Your task to perform on an android device: toggle show notifications on the lock screen Image 0: 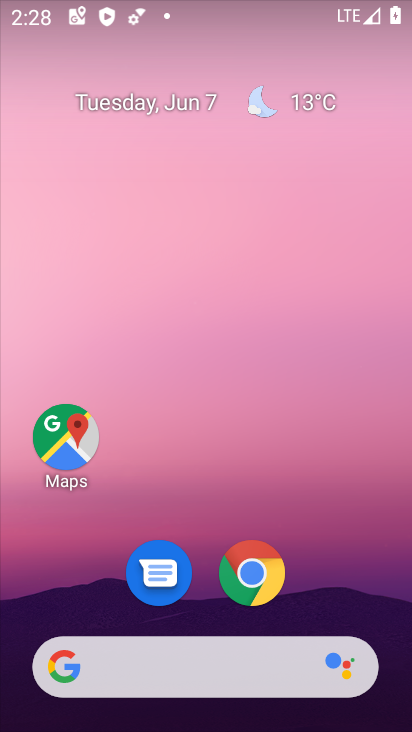
Step 0: drag from (205, 611) to (191, 37)
Your task to perform on an android device: toggle show notifications on the lock screen Image 1: 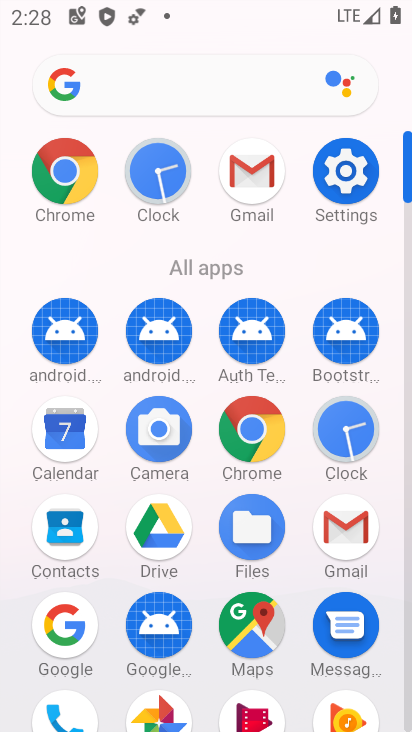
Step 1: click (342, 170)
Your task to perform on an android device: toggle show notifications on the lock screen Image 2: 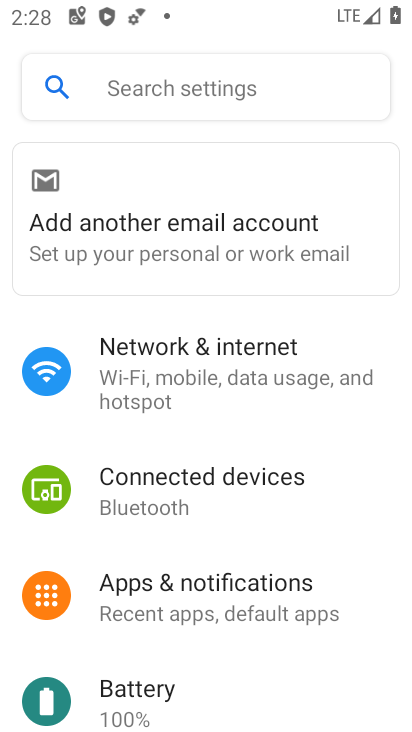
Step 2: click (205, 613)
Your task to perform on an android device: toggle show notifications on the lock screen Image 3: 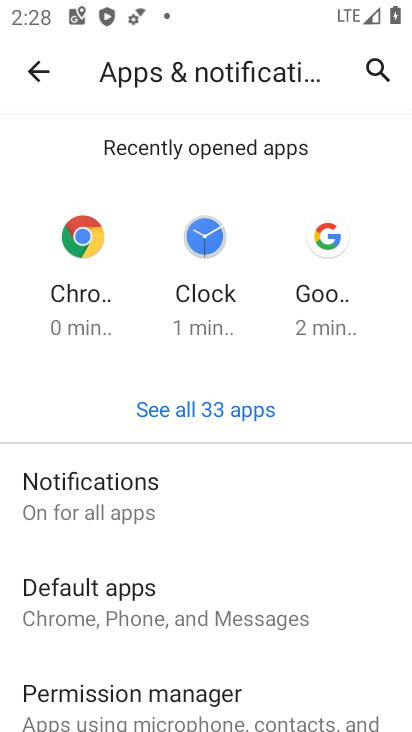
Step 3: click (139, 511)
Your task to perform on an android device: toggle show notifications on the lock screen Image 4: 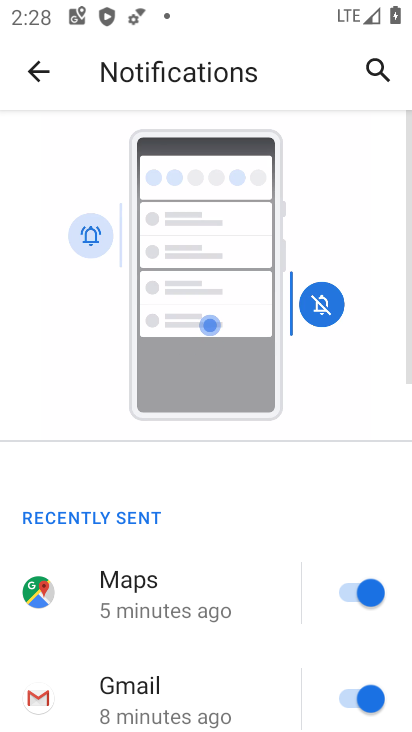
Step 4: drag from (234, 633) to (211, 115)
Your task to perform on an android device: toggle show notifications on the lock screen Image 5: 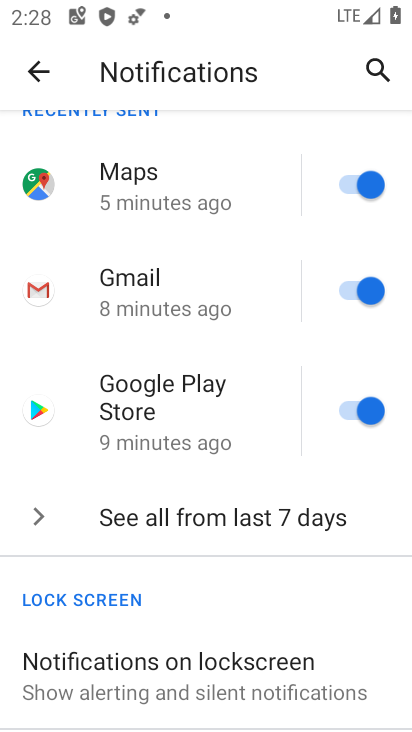
Step 5: drag from (189, 615) to (214, 234)
Your task to perform on an android device: toggle show notifications on the lock screen Image 6: 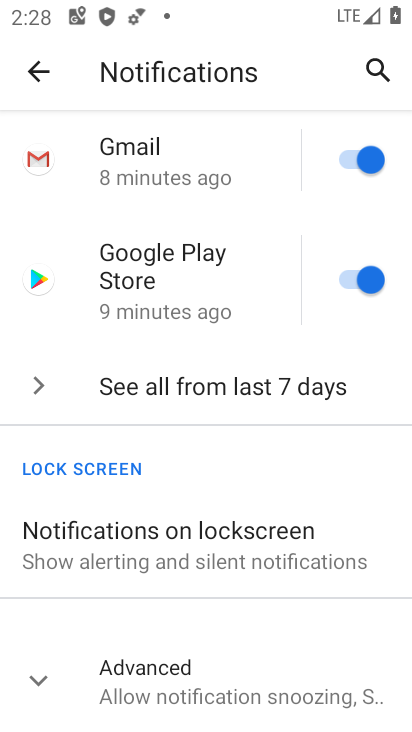
Step 6: click (63, 571)
Your task to perform on an android device: toggle show notifications on the lock screen Image 7: 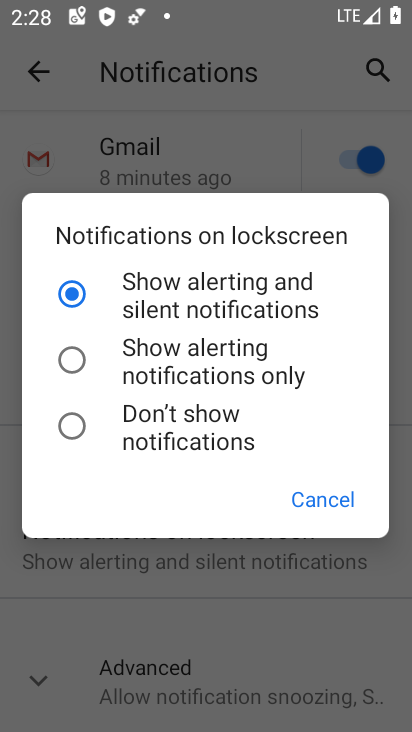
Step 7: click (148, 368)
Your task to perform on an android device: toggle show notifications on the lock screen Image 8: 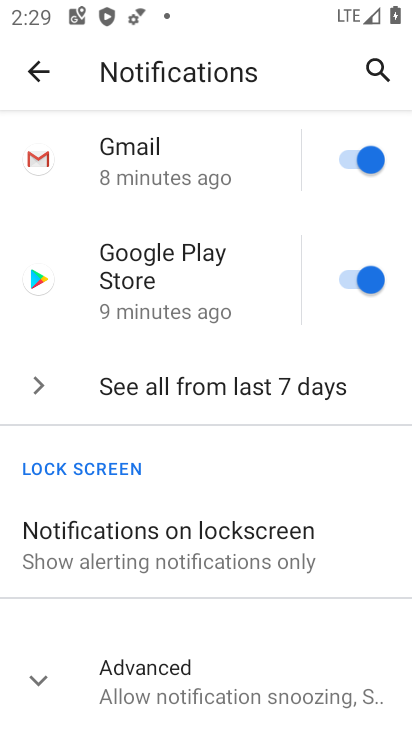
Step 8: task complete